Your task to perform on an android device: open chrome and create a bookmark for the current page Image 0: 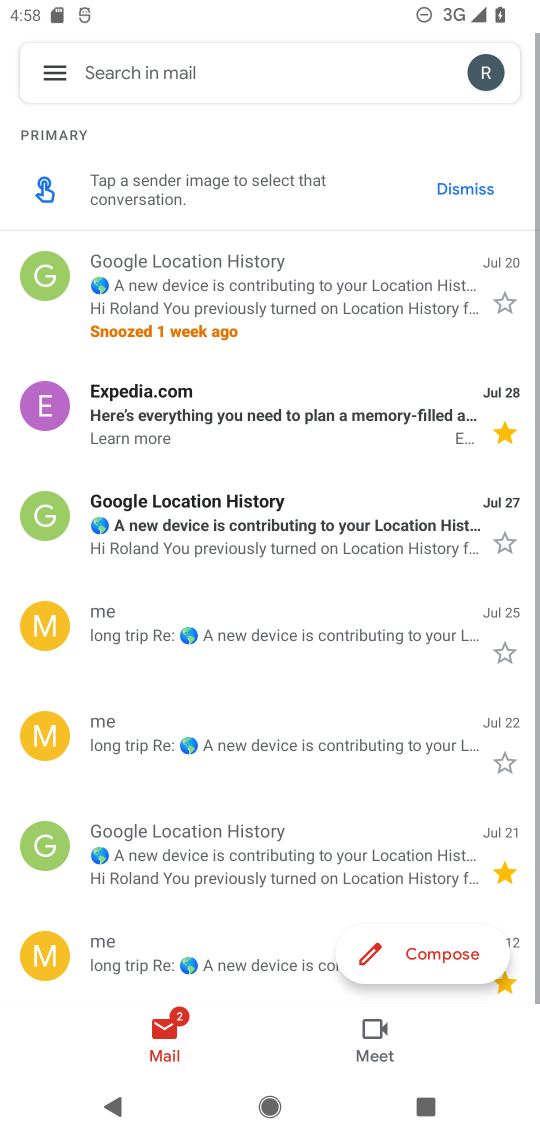
Step 0: press home button
Your task to perform on an android device: open chrome and create a bookmark for the current page Image 1: 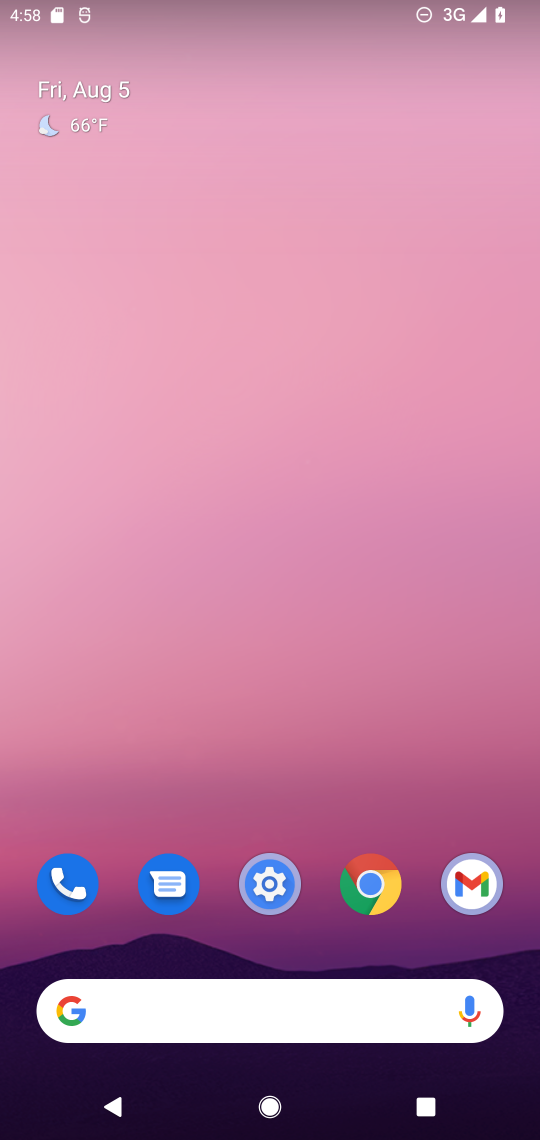
Step 1: drag from (465, 965) to (147, 21)
Your task to perform on an android device: open chrome and create a bookmark for the current page Image 2: 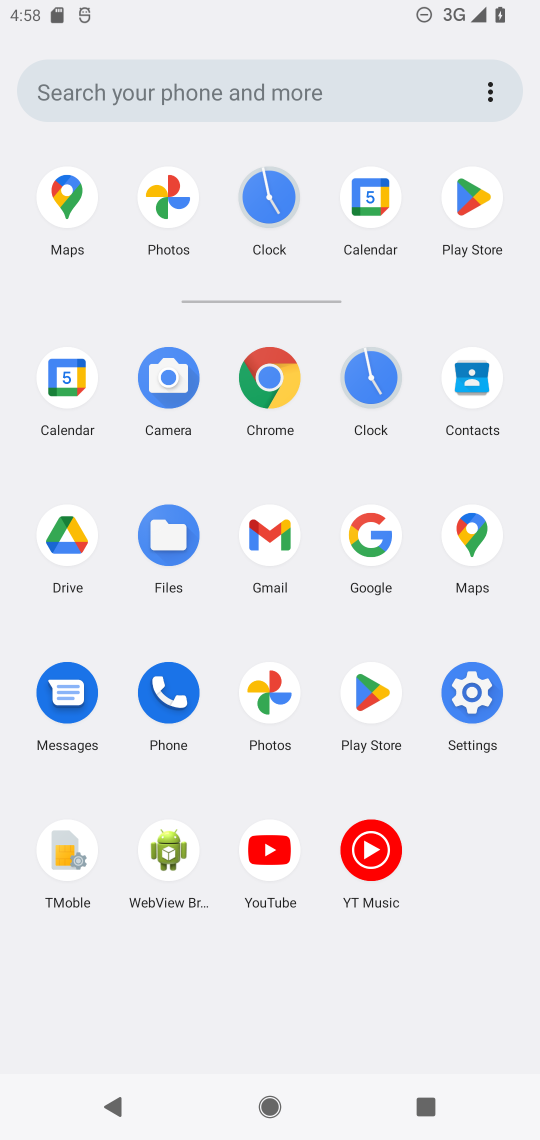
Step 2: click (263, 389)
Your task to perform on an android device: open chrome and create a bookmark for the current page Image 3: 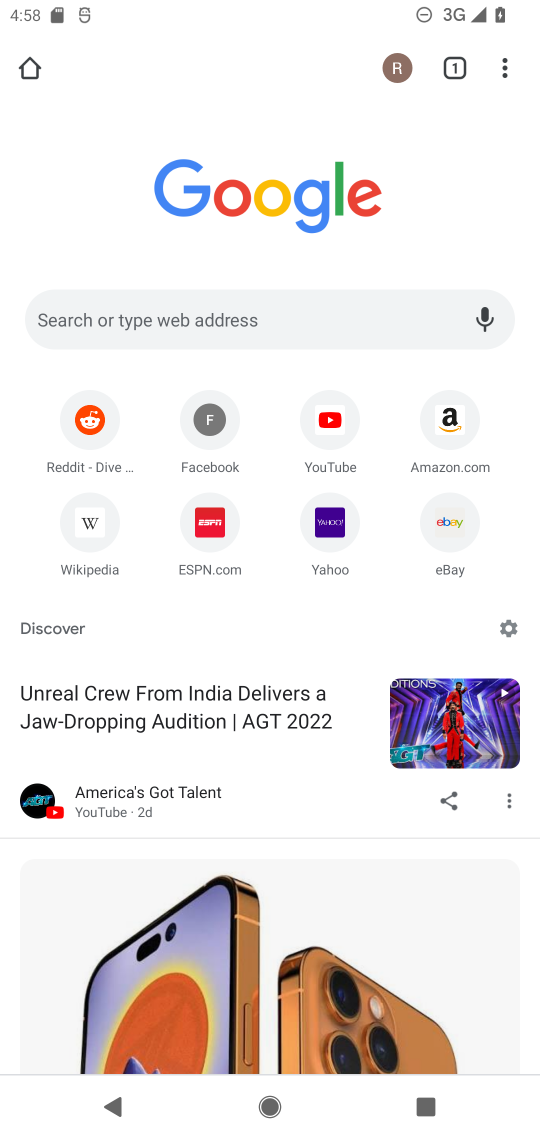
Step 3: click (505, 65)
Your task to perform on an android device: open chrome and create a bookmark for the current page Image 4: 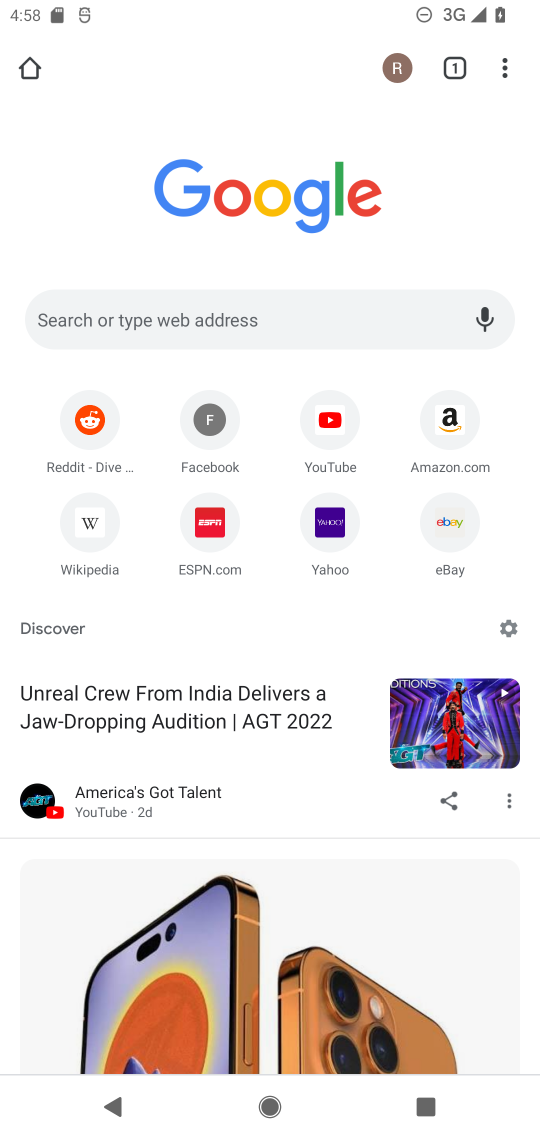
Step 4: click (505, 65)
Your task to perform on an android device: open chrome and create a bookmark for the current page Image 5: 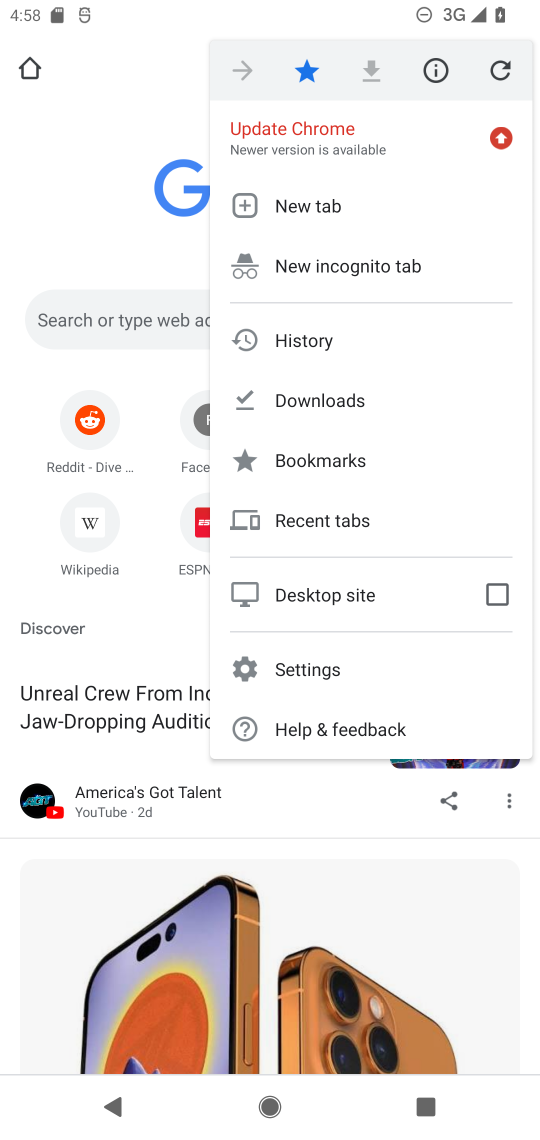
Step 5: task complete